Your task to perform on an android device: Search for pizza restaurants on Maps Image 0: 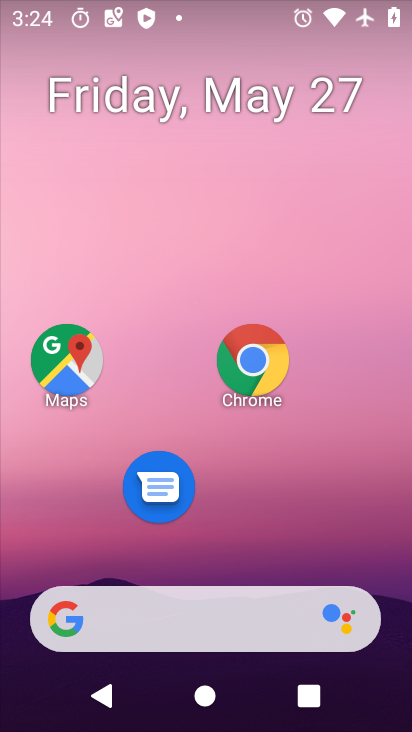
Step 0: drag from (258, 514) to (302, 34)
Your task to perform on an android device: Search for pizza restaurants on Maps Image 1: 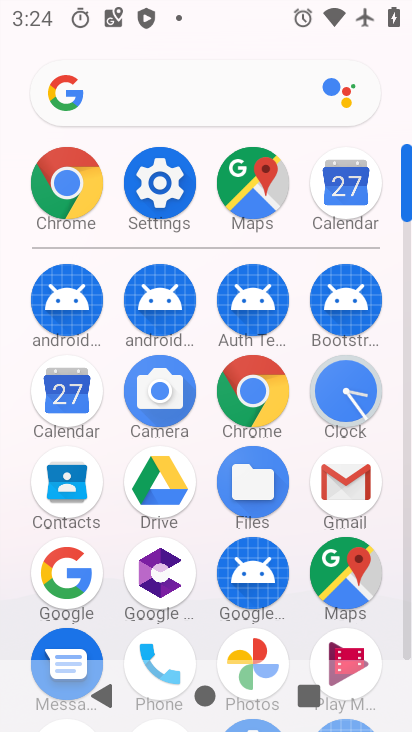
Step 1: click (252, 187)
Your task to perform on an android device: Search for pizza restaurants on Maps Image 2: 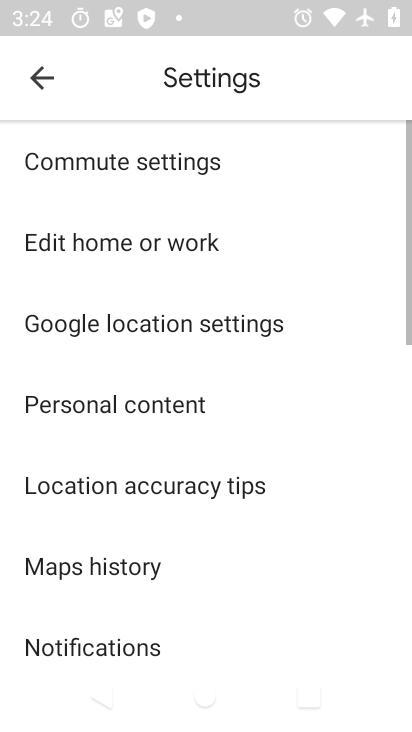
Step 2: press back button
Your task to perform on an android device: Search for pizza restaurants on Maps Image 3: 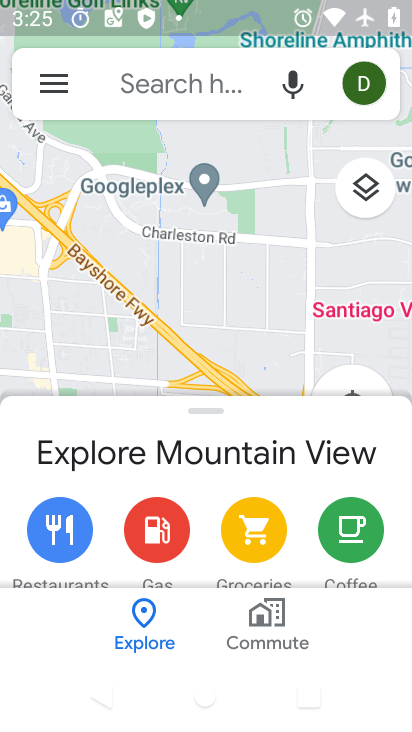
Step 3: click (172, 80)
Your task to perform on an android device: Search for pizza restaurants on Maps Image 4: 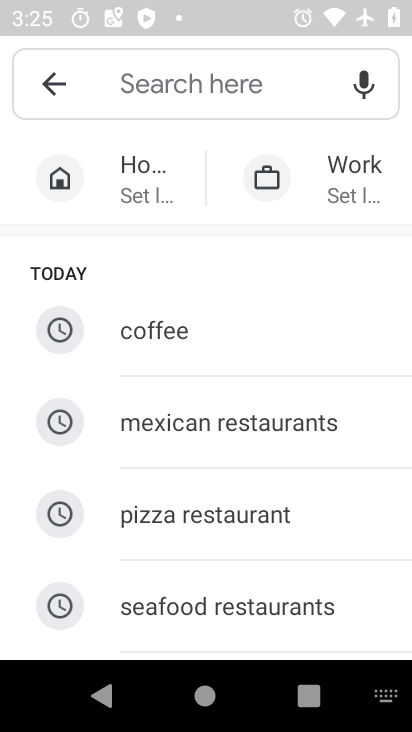
Step 4: click (183, 524)
Your task to perform on an android device: Search for pizza restaurants on Maps Image 5: 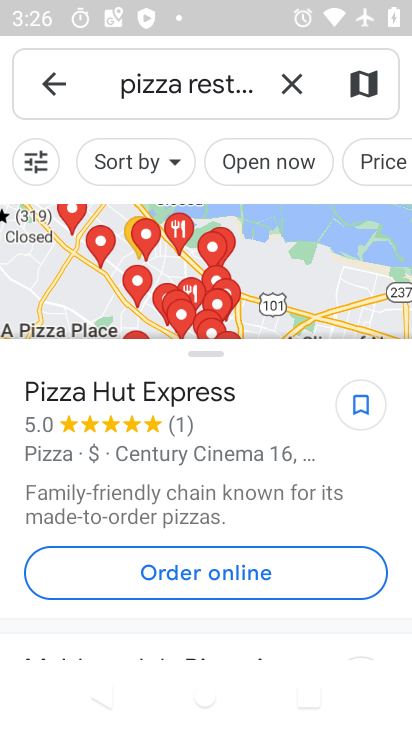
Step 5: task complete